Your task to perform on an android device: add a contact Image 0: 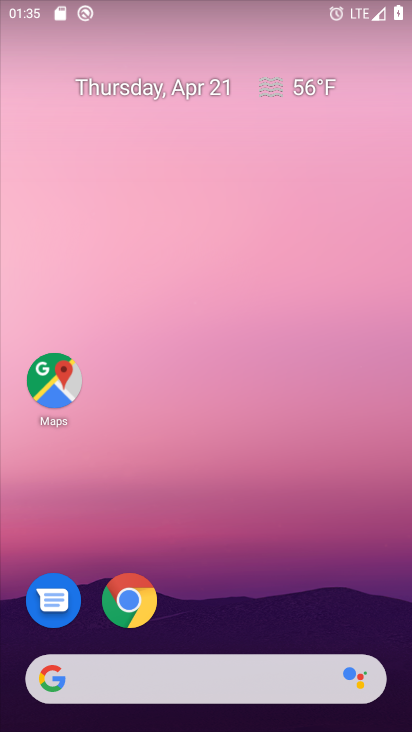
Step 0: drag from (312, 597) to (358, 127)
Your task to perform on an android device: add a contact Image 1: 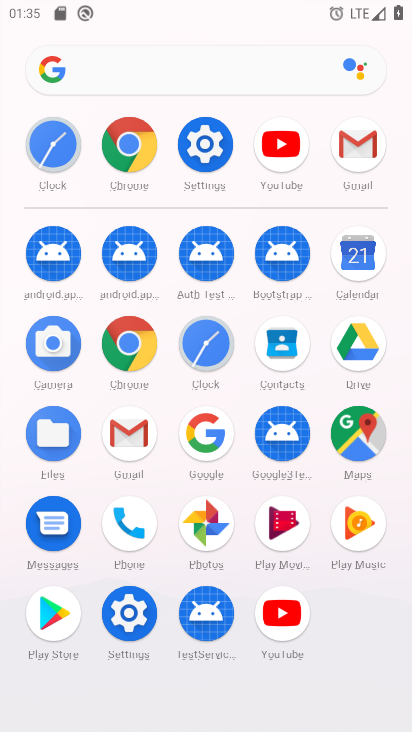
Step 1: click (281, 354)
Your task to perform on an android device: add a contact Image 2: 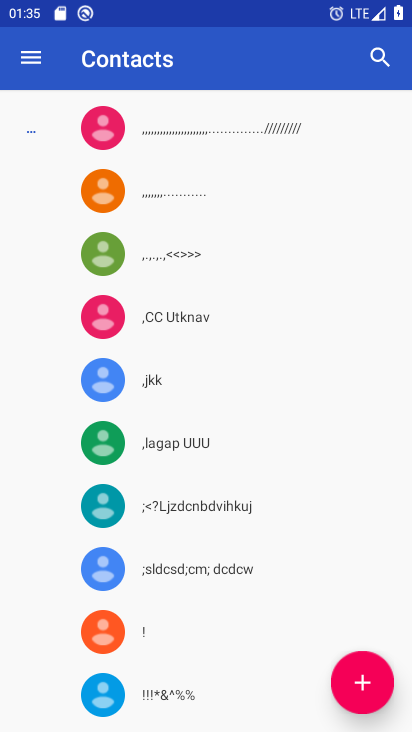
Step 2: click (363, 681)
Your task to perform on an android device: add a contact Image 3: 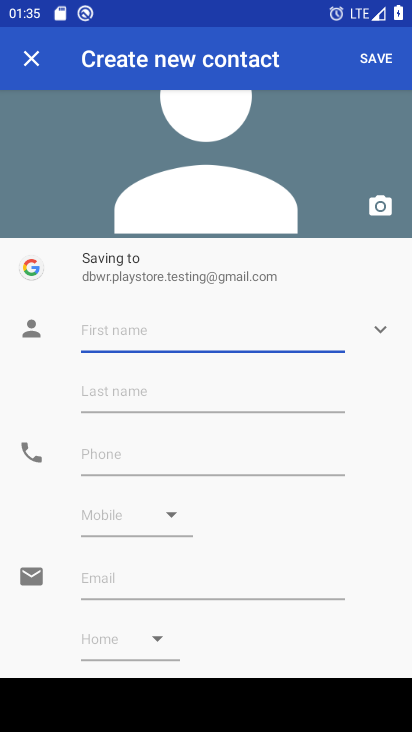
Step 3: type "Ajaya"
Your task to perform on an android device: add a contact Image 4: 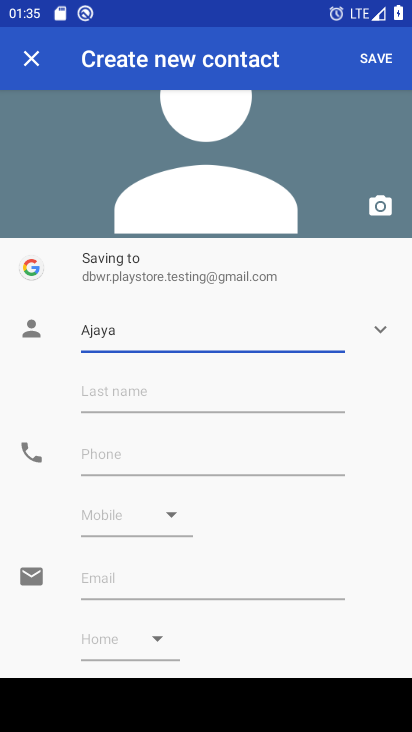
Step 4: click (152, 455)
Your task to perform on an android device: add a contact Image 5: 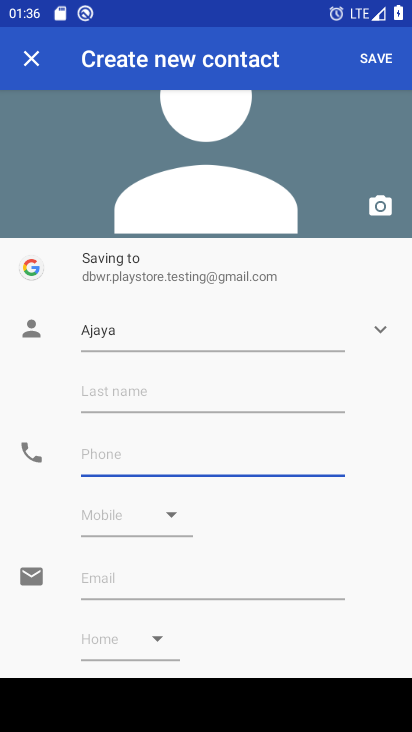
Step 5: type "919977553311"
Your task to perform on an android device: add a contact Image 6: 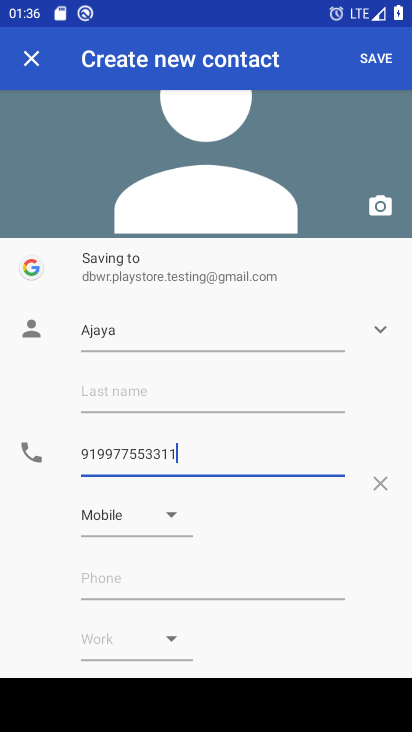
Step 6: click (385, 54)
Your task to perform on an android device: add a contact Image 7: 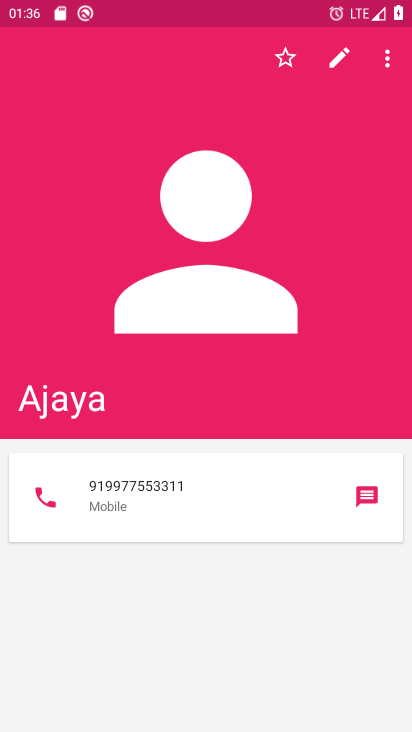
Step 7: task complete